Your task to perform on an android device: What's the weather going to be this weekend? Image 0: 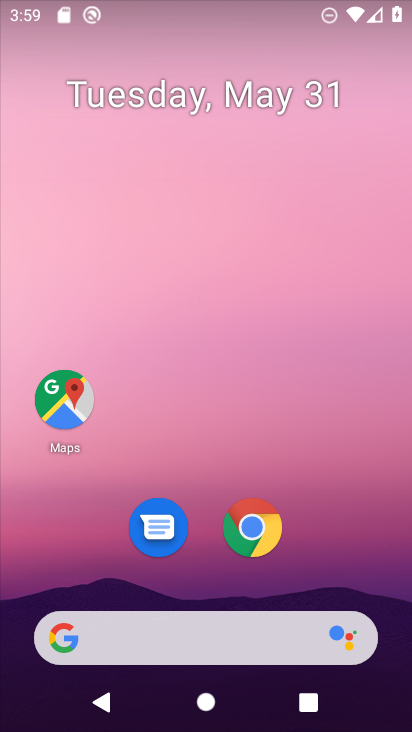
Step 0: drag from (246, 609) to (254, 69)
Your task to perform on an android device: What's the weather going to be this weekend? Image 1: 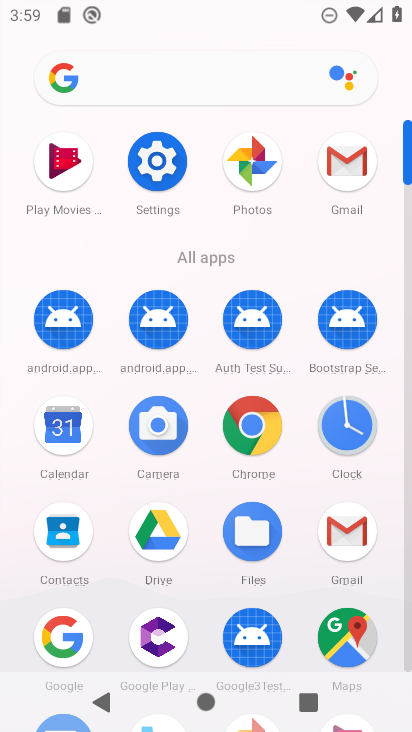
Step 1: click (63, 624)
Your task to perform on an android device: What's the weather going to be this weekend? Image 2: 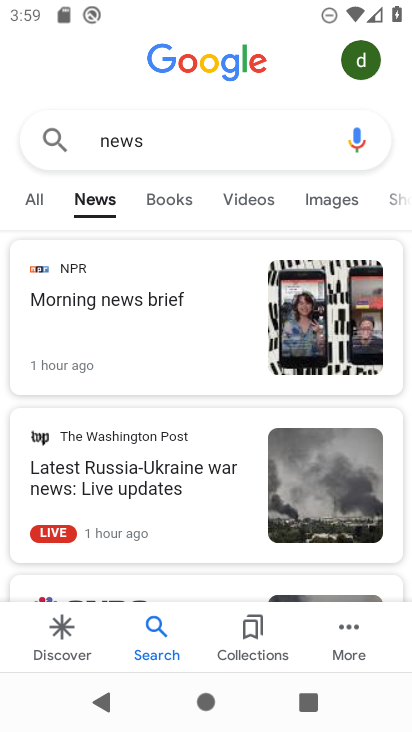
Step 2: click (299, 150)
Your task to perform on an android device: What's the weather going to be this weekend? Image 3: 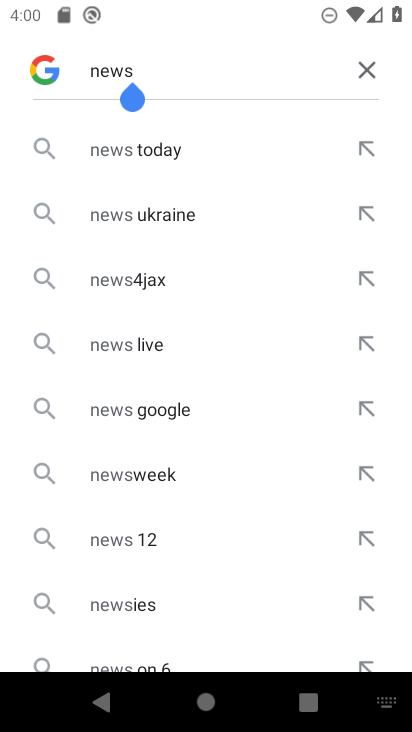
Step 3: click (362, 78)
Your task to perform on an android device: What's the weather going to be this weekend? Image 4: 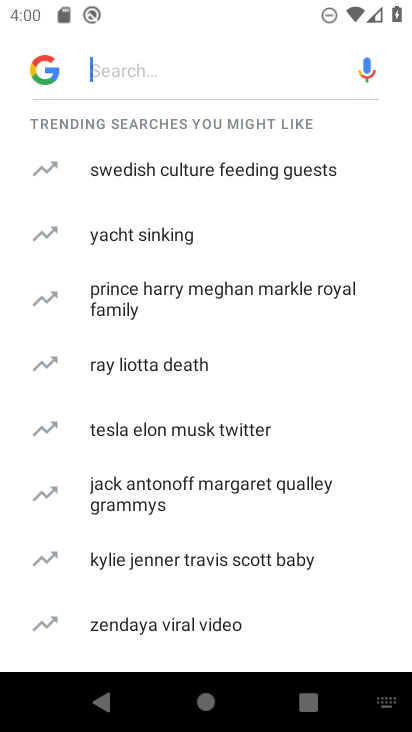
Step 4: press back button
Your task to perform on an android device: What's the weather going to be this weekend? Image 5: 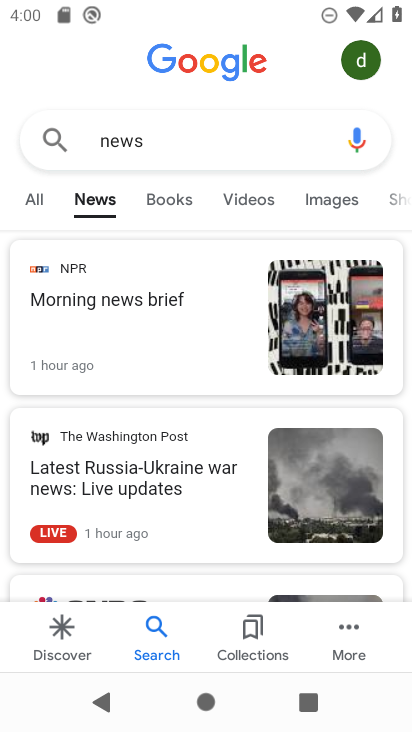
Step 5: click (119, 147)
Your task to perform on an android device: What's the weather going to be this weekend? Image 6: 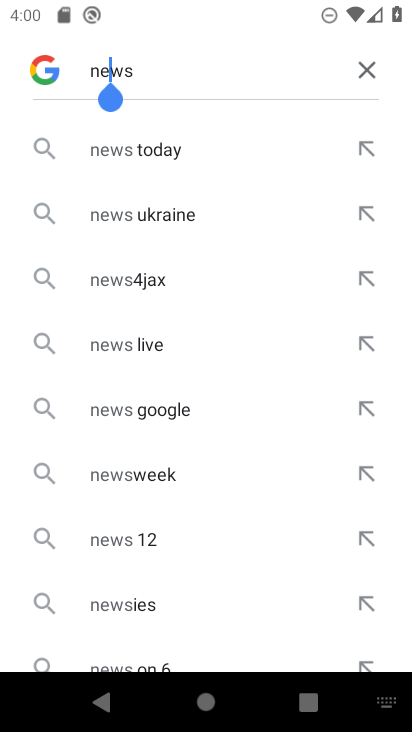
Step 6: click (354, 66)
Your task to perform on an android device: What's the weather going to be this weekend? Image 7: 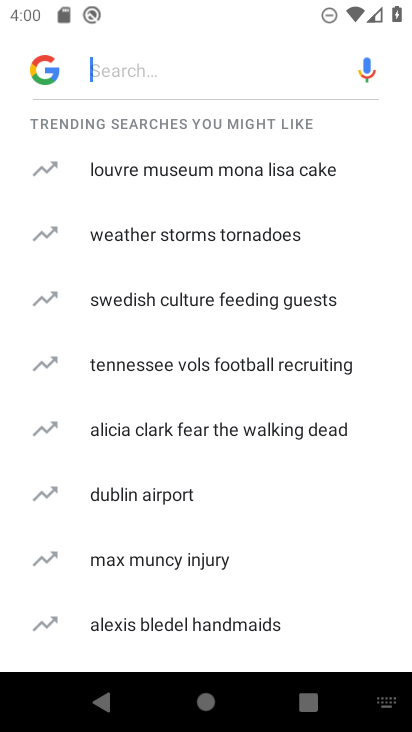
Step 7: type "weather"
Your task to perform on an android device: What's the weather going to be this weekend? Image 8: 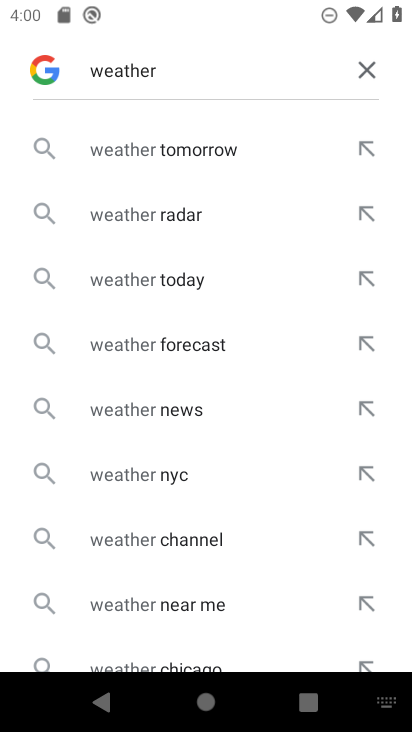
Step 8: click (174, 293)
Your task to perform on an android device: What's the weather going to be this weekend? Image 9: 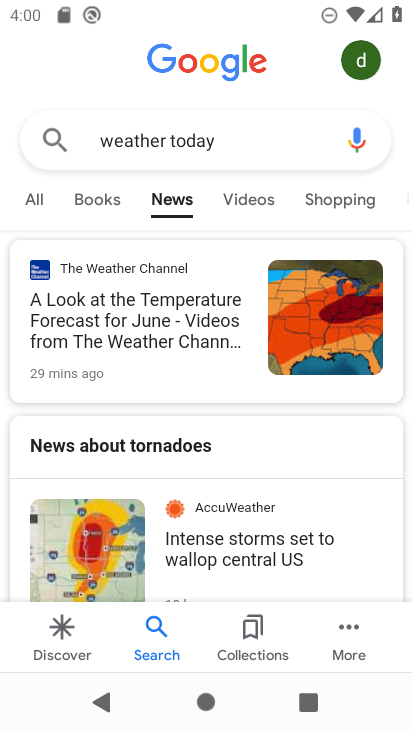
Step 9: click (35, 212)
Your task to perform on an android device: What's the weather going to be this weekend? Image 10: 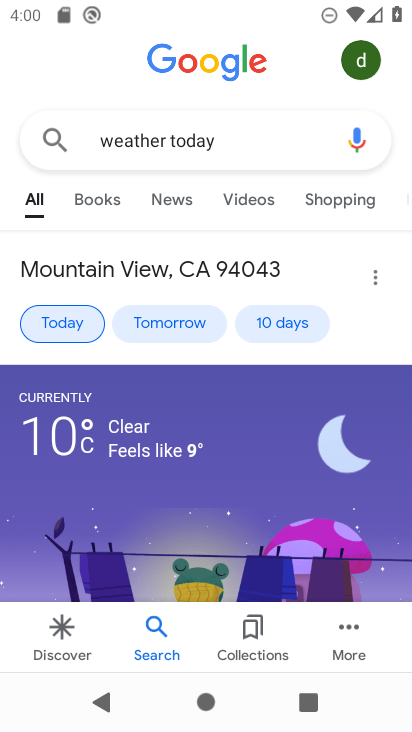
Step 10: click (261, 309)
Your task to perform on an android device: What's the weather going to be this weekend? Image 11: 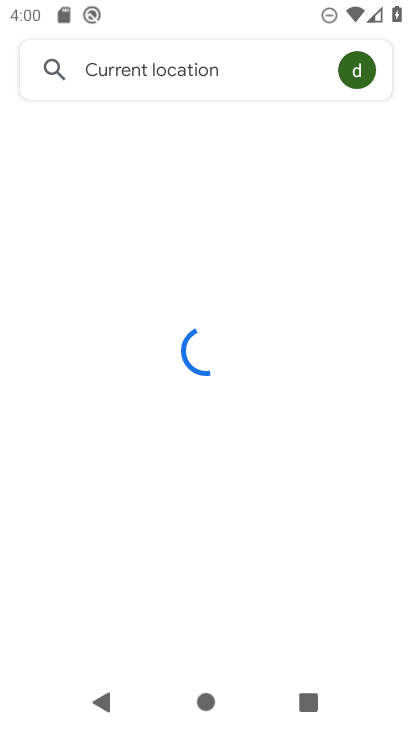
Step 11: task complete